Your task to perform on an android device: Is it going to rain this weekend? Image 0: 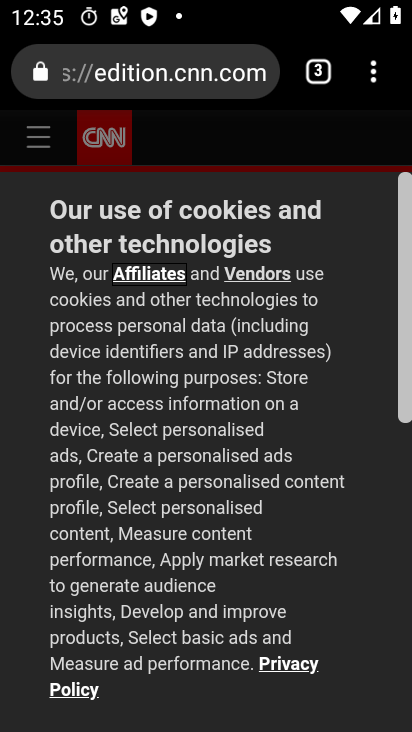
Step 0: press home button
Your task to perform on an android device: Is it going to rain this weekend? Image 1: 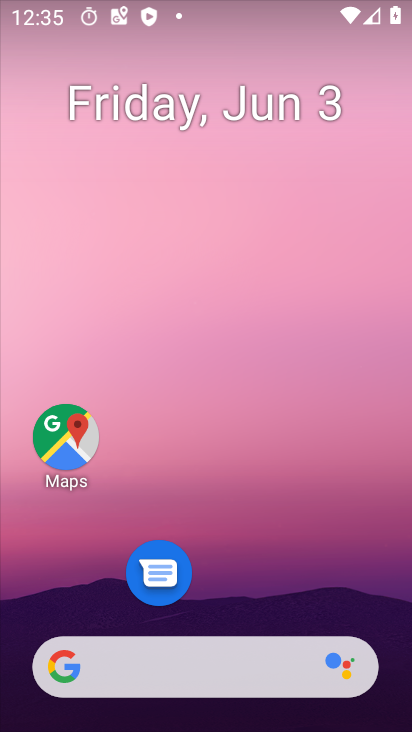
Step 1: drag from (0, 245) to (411, 345)
Your task to perform on an android device: Is it going to rain this weekend? Image 2: 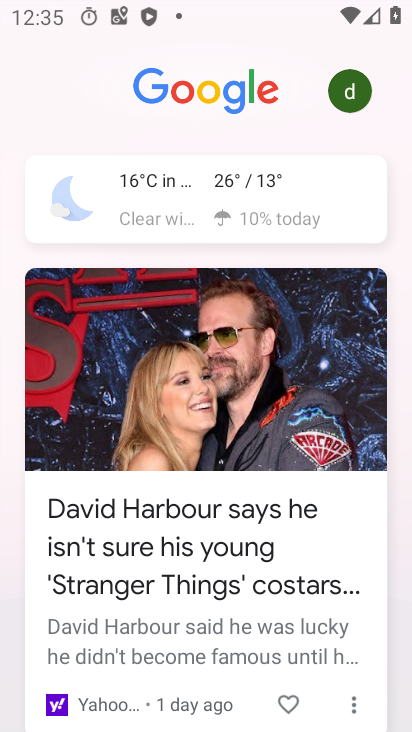
Step 2: click (219, 200)
Your task to perform on an android device: Is it going to rain this weekend? Image 3: 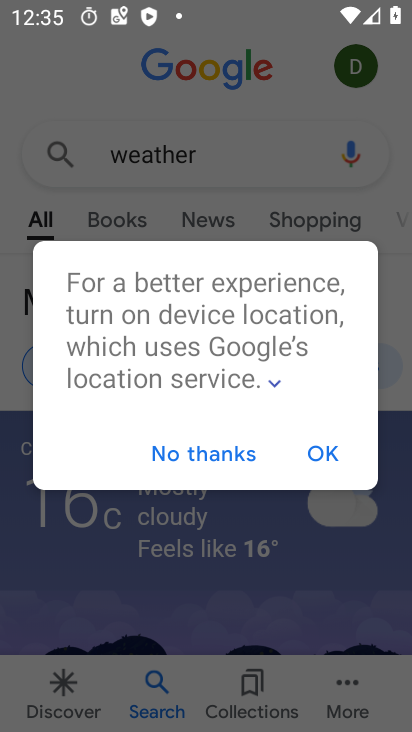
Step 3: click (369, 366)
Your task to perform on an android device: Is it going to rain this weekend? Image 4: 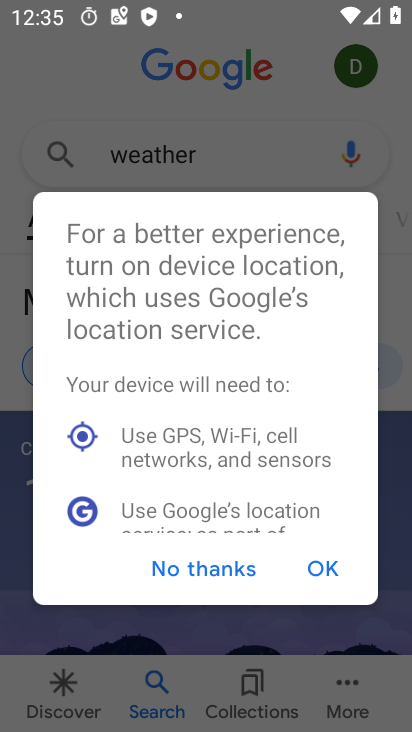
Step 4: click (335, 445)
Your task to perform on an android device: Is it going to rain this weekend? Image 5: 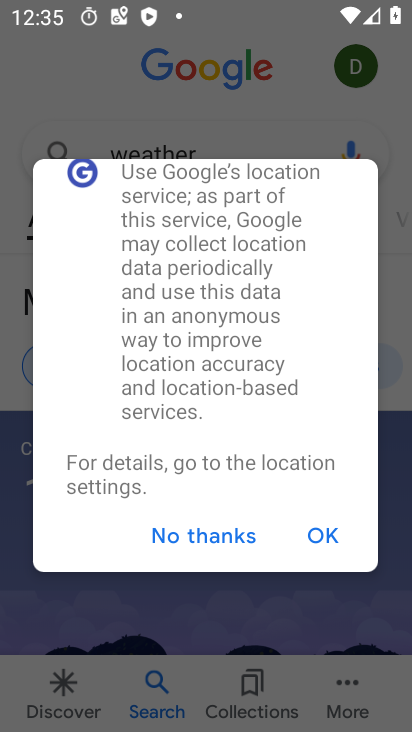
Step 5: click (222, 533)
Your task to perform on an android device: Is it going to rain this weekend? Image 6: 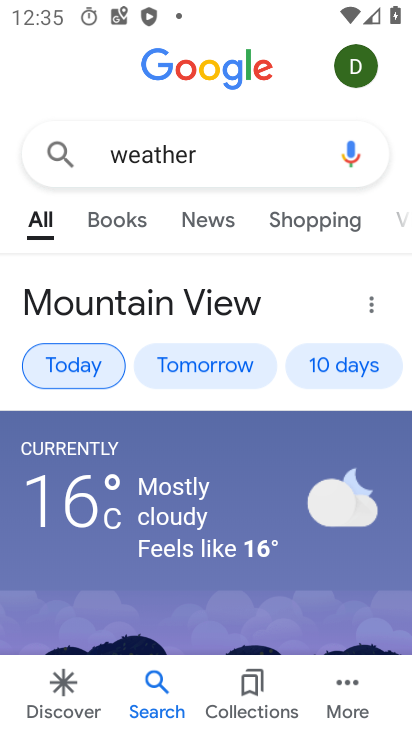
Step 6: click (320, 373)
Your task to perform on an android device: Is it going to rain this weekend? Image 7: 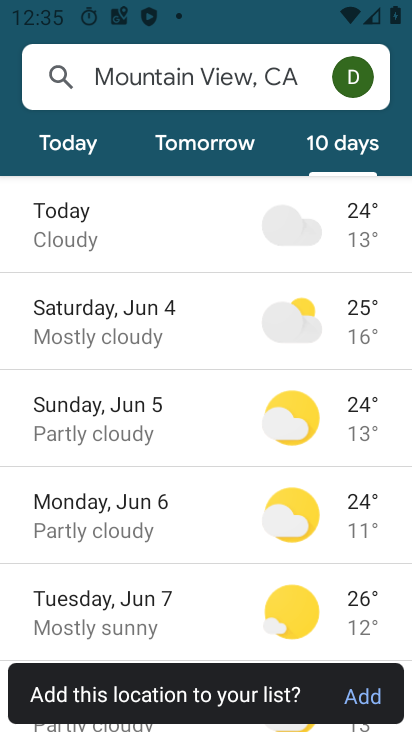
Step 7: task complete